Your task to perform on an android device: Go to ESPN.com Image 0: 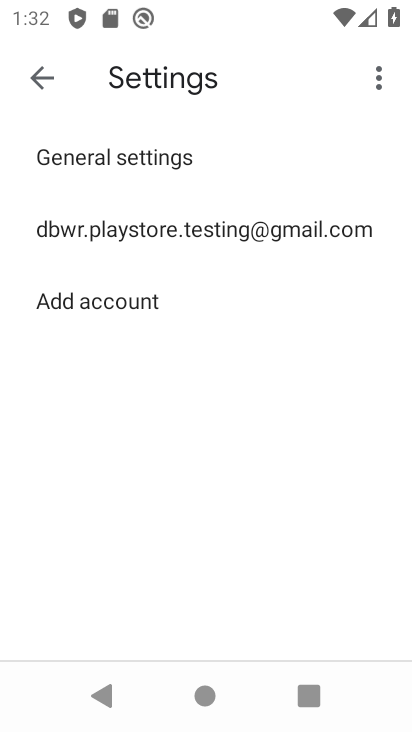
Step 0: press home button
Your task to perform on an android device: Go to ESPN.com Image 1: 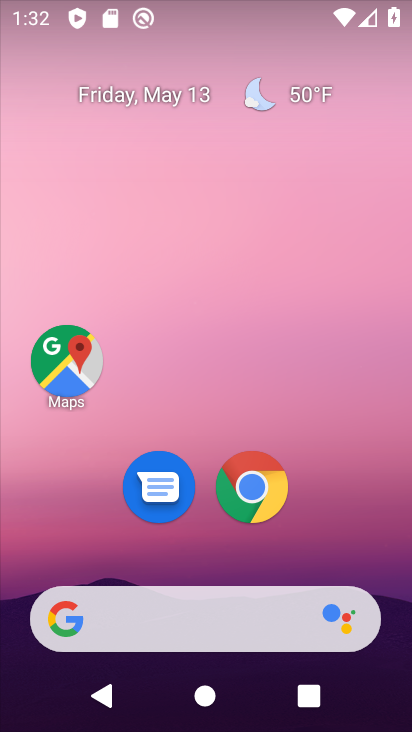
Step 1: click (267, 483)
Your task to perform on an android device: Go to ESPN.com Image 2: 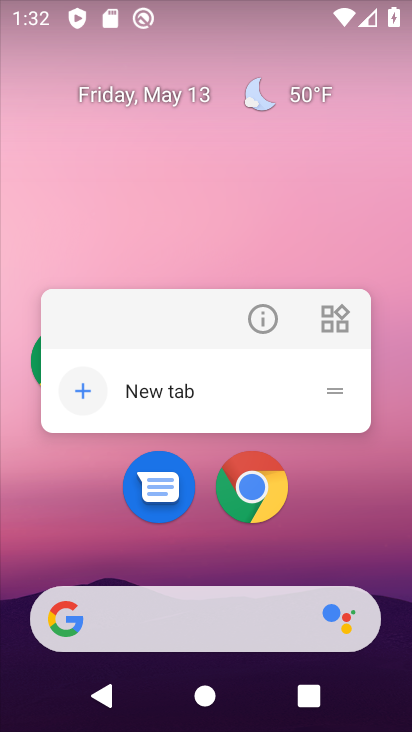
Step 2: click (239, 489)
Your task to perform on an android device: Go to ESPN.com Image 3: 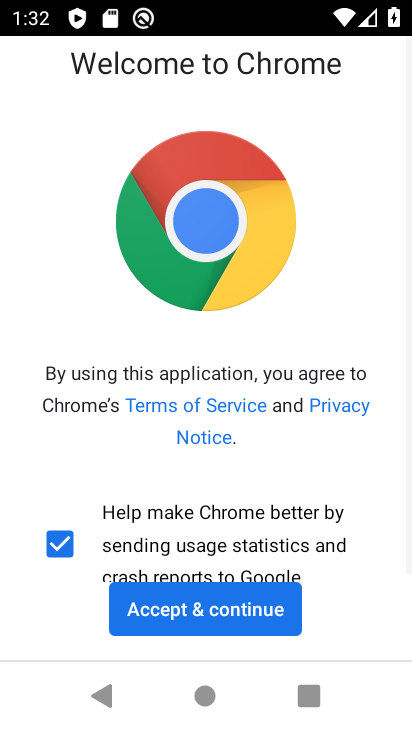
Step 3: click (239, 614)
Your task to perform on an android device: Go to ESPN.com Image 4: 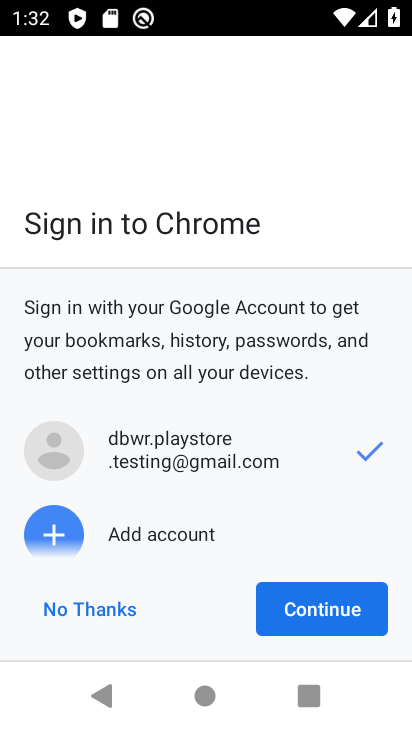
Step 4: click (315, 598)
Your task to perform on an android device: Go to ESPN.com Image 5: 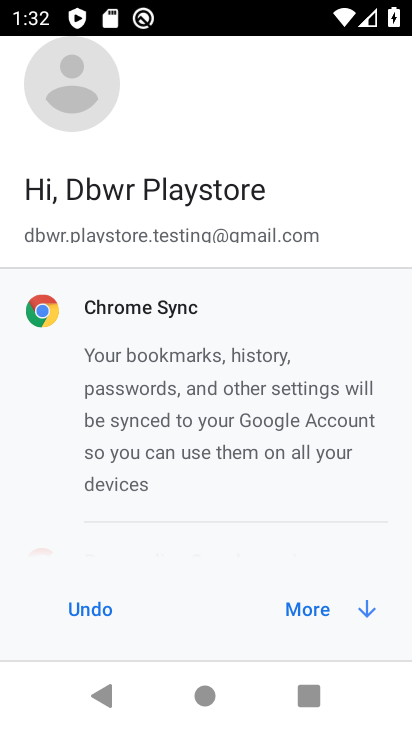
Step 5: click (319, 611)
Your task to perform on an android device: Go to ESPN.com Image 6: 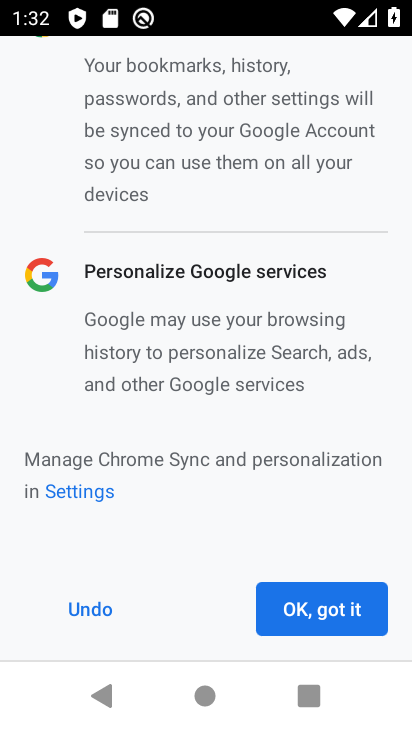
Step 6: click (319, 611)
Your task to perform on an android device: Go to ESPN.com Image 7: 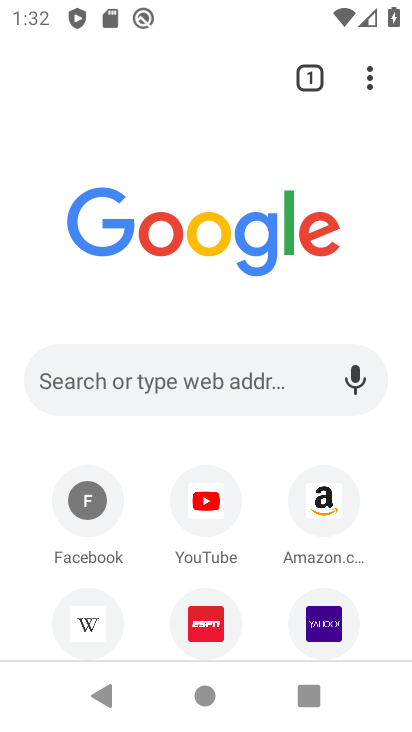
Step 7: click (192, 633)
Your task to perform on an android device: Go to ESPN.com Image 8: 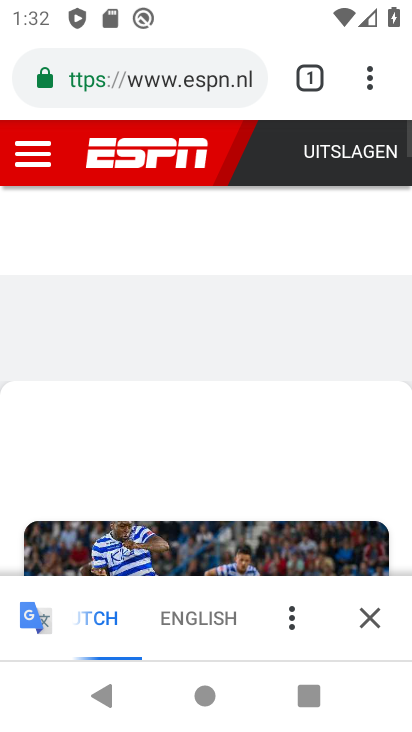
Step 8: task complete